Your task to perform on an android device: open a bookmark in the chrome app Image 0: 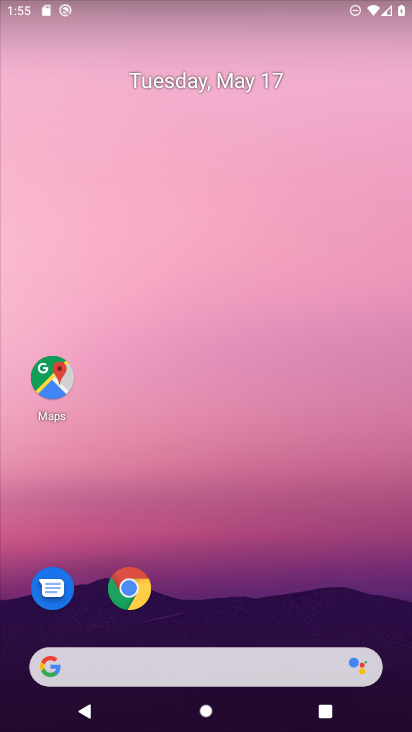
Step 0: click (131, 597)
Your task to perform on an android device: open a bookmark in the chrome app Image 1: 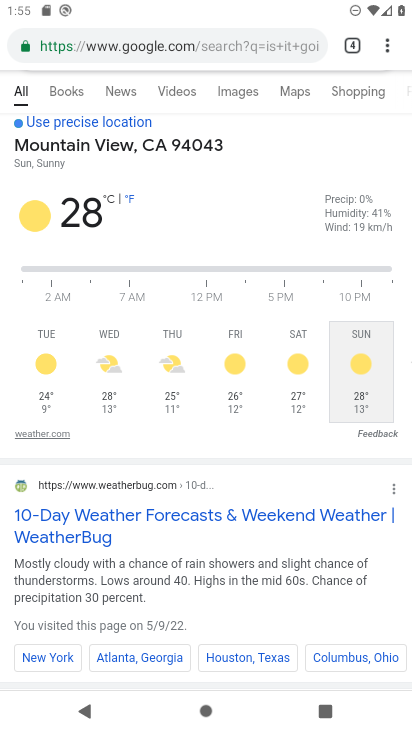
Step 1: click (388, 48)
Your task to perform on an android device: open a bookmark in the chrome app Image 2: 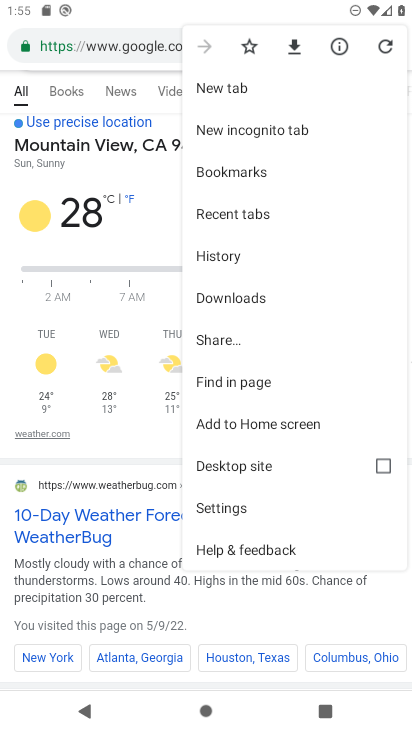
Step 2: click (204, 169)
Your task to perform on an android device: open a bookmark in the chrome app Image 3: 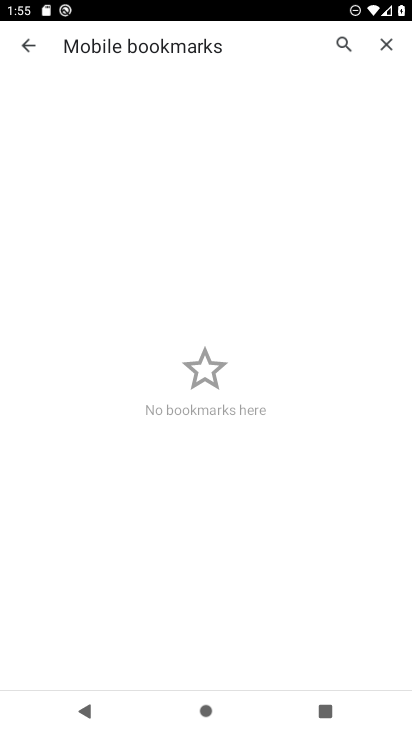
Step 3: task complete